Your task to perform on an android device: set the stopwatch Image 0: 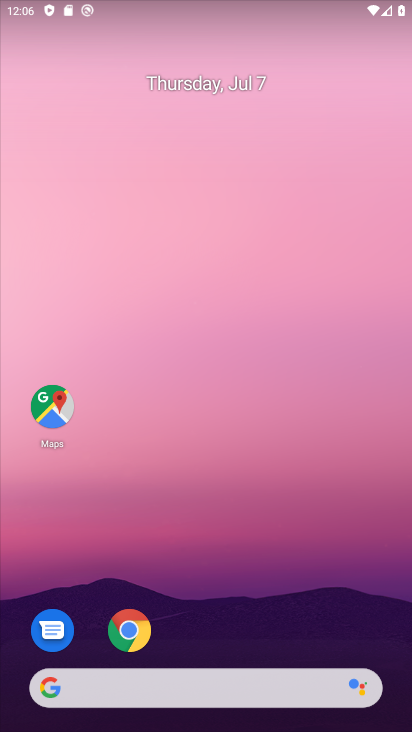
Step 0: drag from (222, 623) to (207, 42)
Your task to perform on an android device: set the stopwatch Image 1: 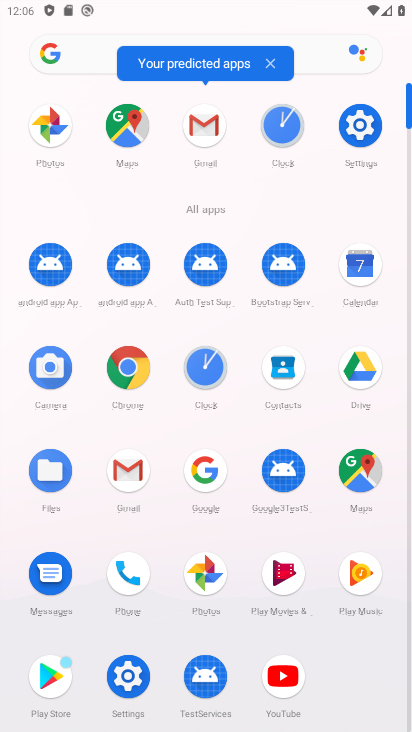
Step 1: click (292, 124)
Your task to perform on an android device: set the stopwatch Image 2: 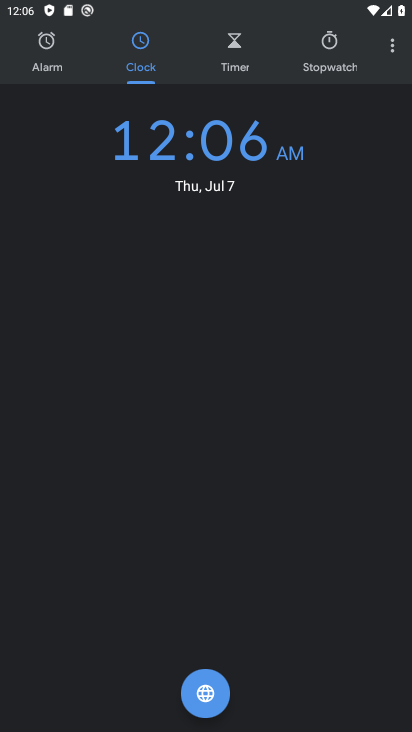
Step 2: click (323, 49)
Your task to perform on an android device: set the stopwatch Image 3: 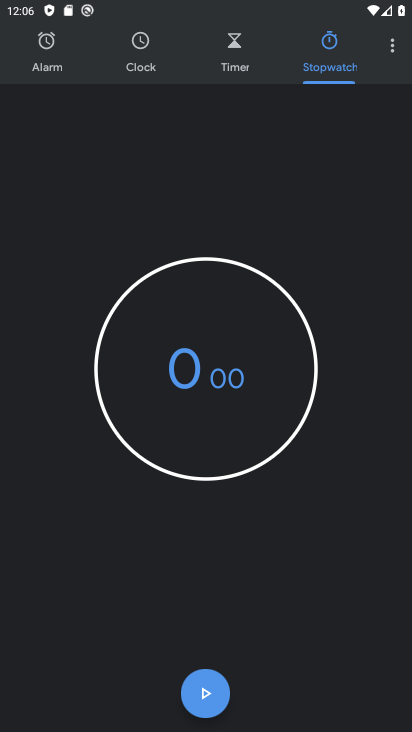
Step 3: click (213, 679)
Your task to perform on an android device: set the stopwatch Image 4: 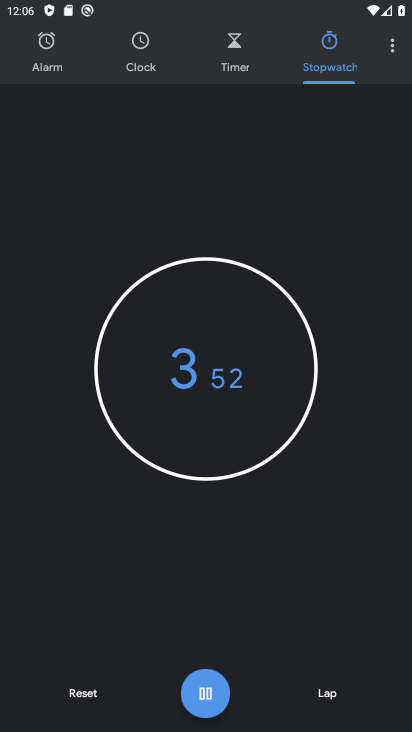
Step 4: task complete